Your task to perform on an android device: Is it going to rain this weekend? Image 0: 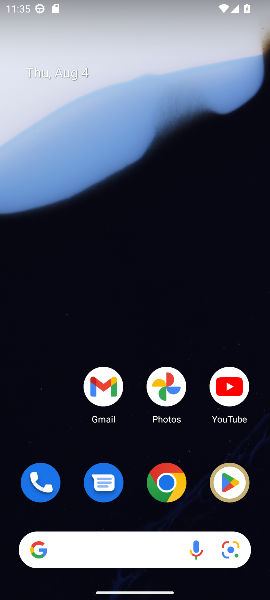
Step 0: drag from (134, 459) to (139, 123)
Your task to perform on an android device: Is it going to rain this weekend? Image 1: 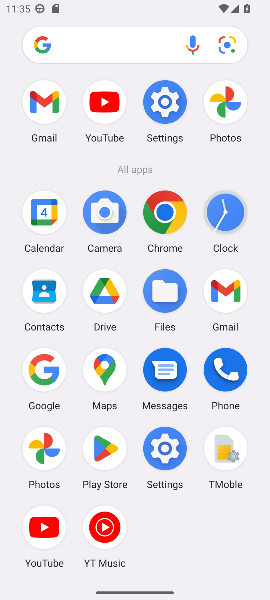
Step 1: click (48, 379)
Your task to perform on an android device: Is it going to rain this weekend? Image 2: 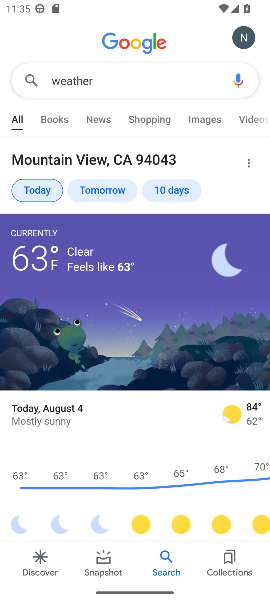
Step 2: click (157, 186)
Your task to perform on an android device: Is it going to rain this weekend? Image 3: 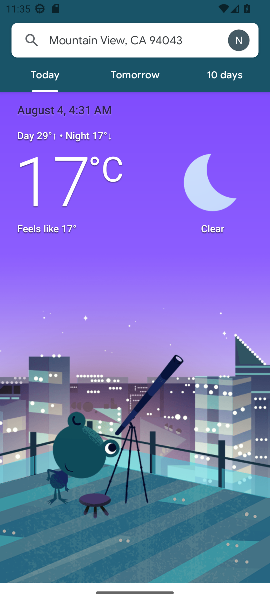
Step 3: task complete